Your task to perform on an android device: Empty the shopping cart on bestbuy. Add "razer naga" to the cart on bestbuy, then select checkout. Image 0: 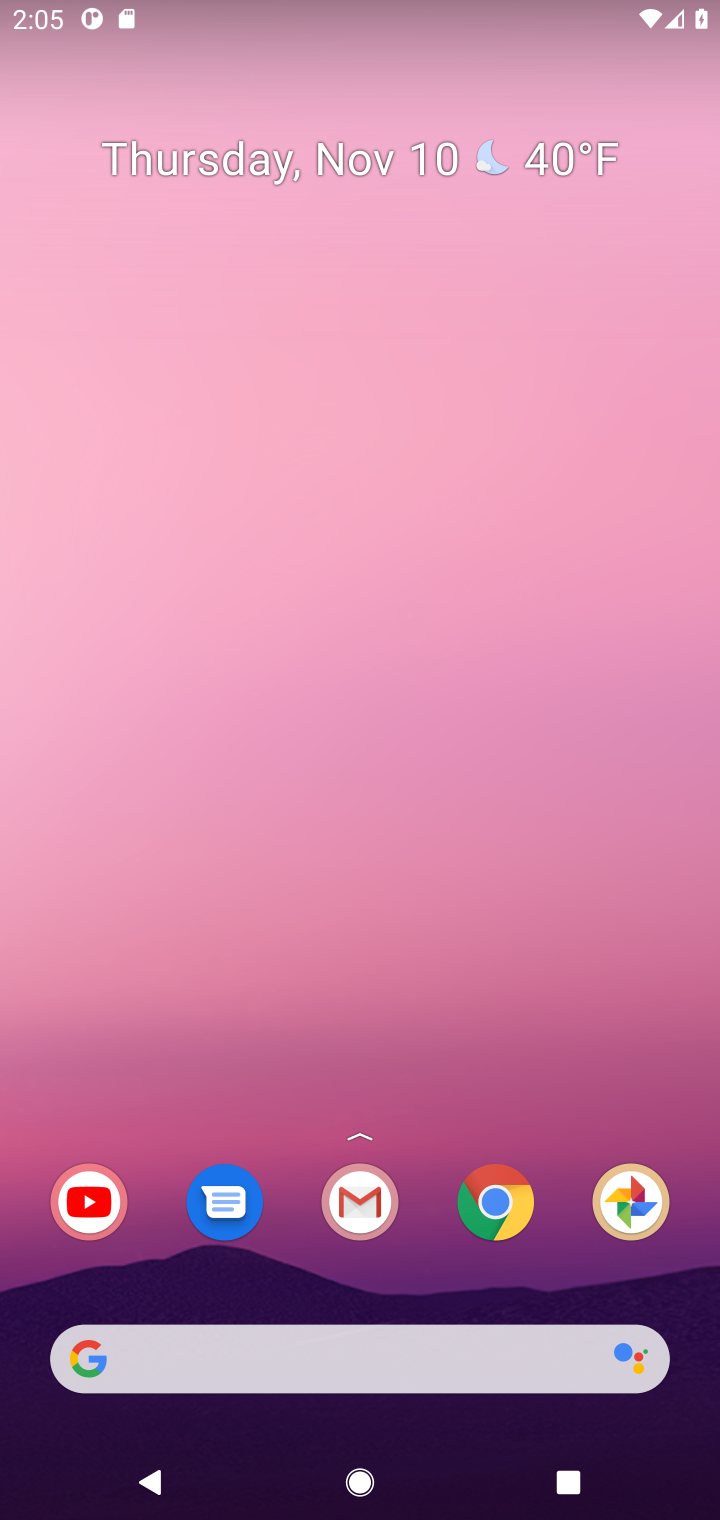
Step 0: press home button
Your task to perform on an android device: Empty the shopping cart on bestbuy. Add "razer naga" to the cart on bestbuy, then select checkout. Image 1: 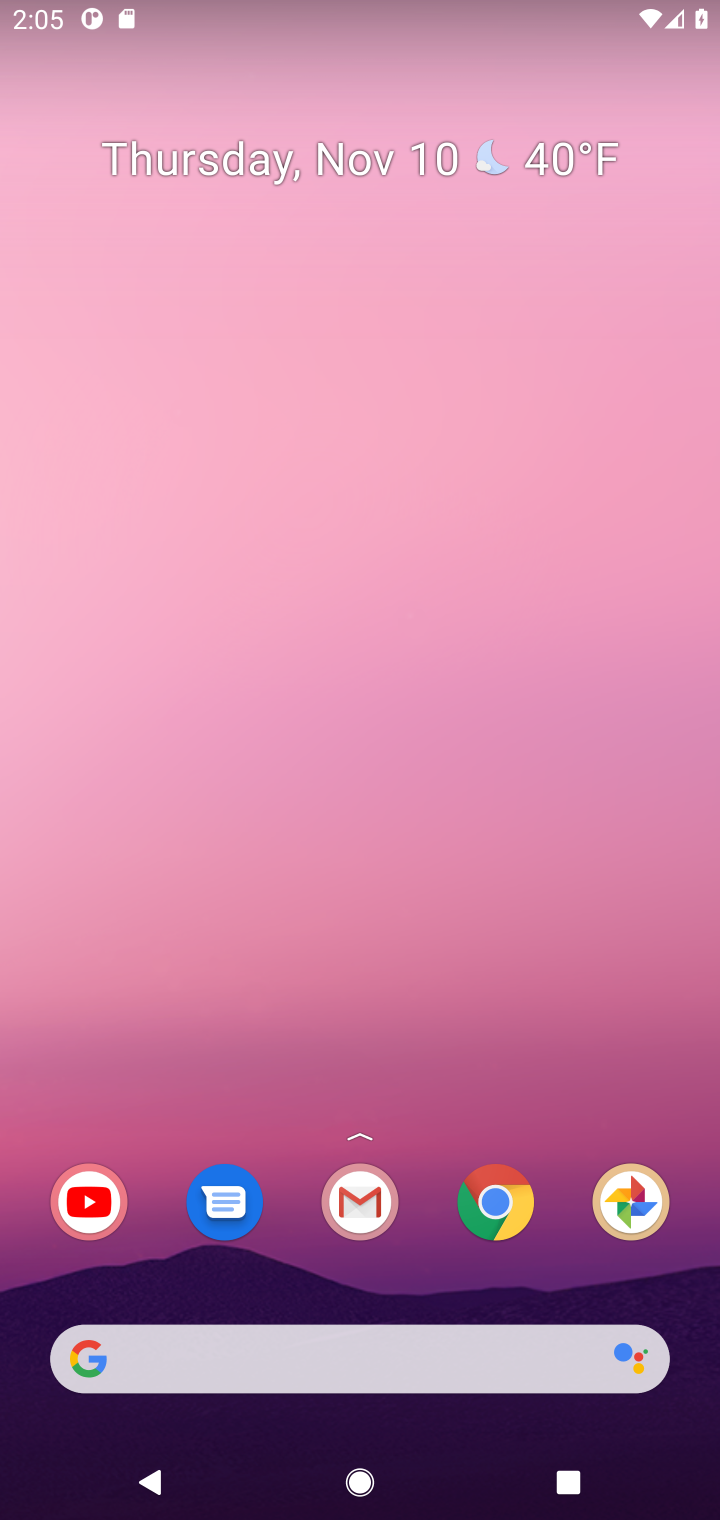
Step 1: click (499, 1196)
Your task to perform on an android device: Empty the shopping cart on bestbuy. Add "razer naga" to the cart on bestbuy, then select checkout. Image 2: 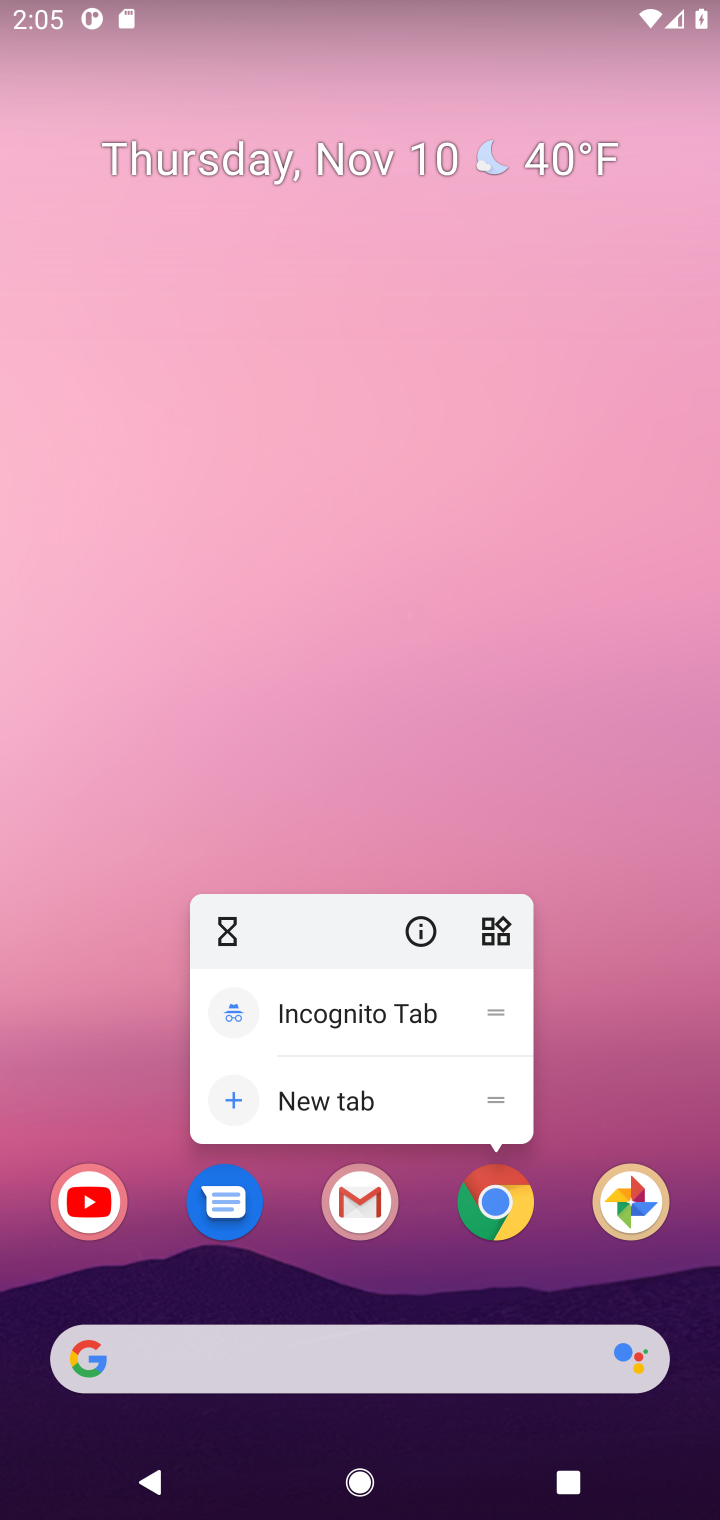
Step 2: click (499, 1196)
Your task to perform on an android device: Empty the shopping cart on bestbuy. Add "razer naga" to the cart on bestbuy, then select checkout. Image 3: 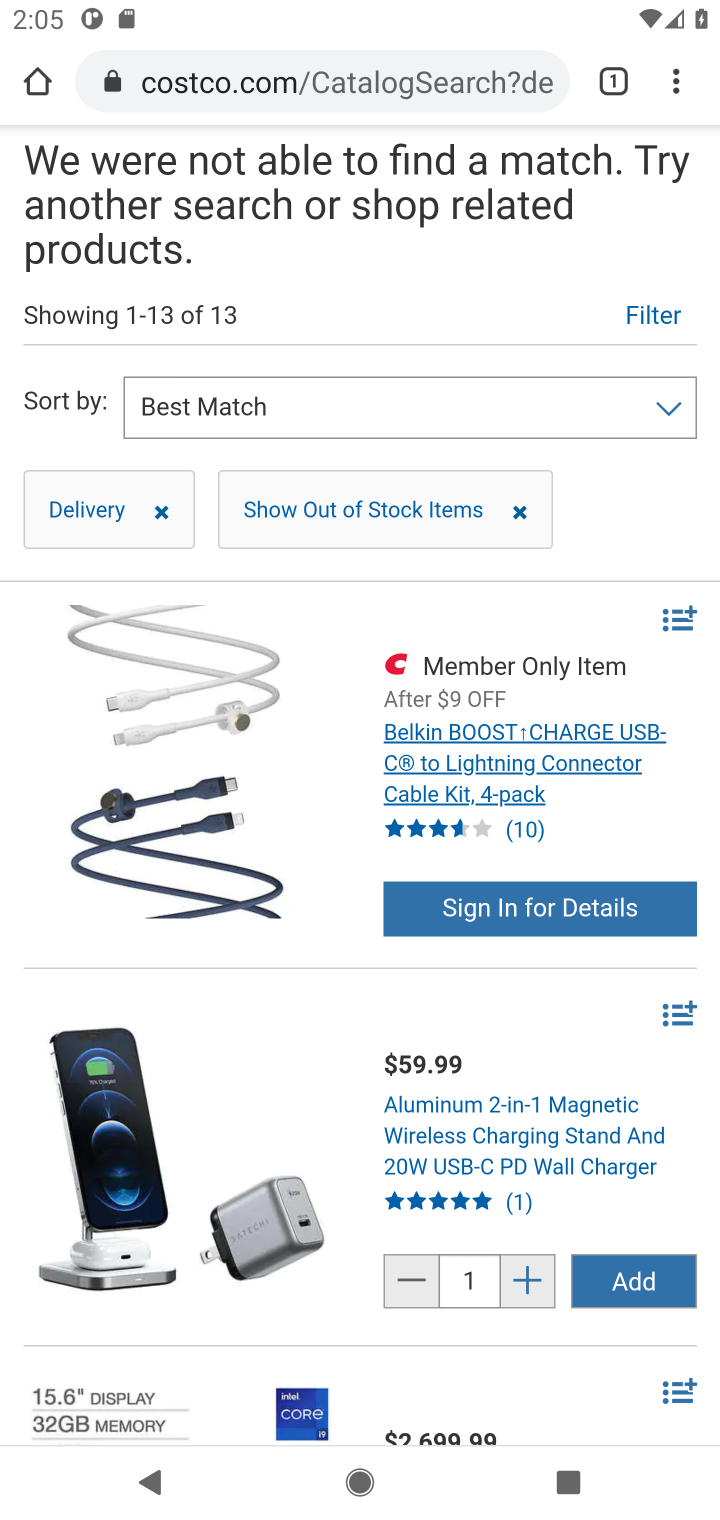
Step 3: click (351, 71)
Your task to perform on an android device: Empty the shopping cart on bestbuy. Add "razer naga" to the cart on bestbuy, then select checkout. Image 4: 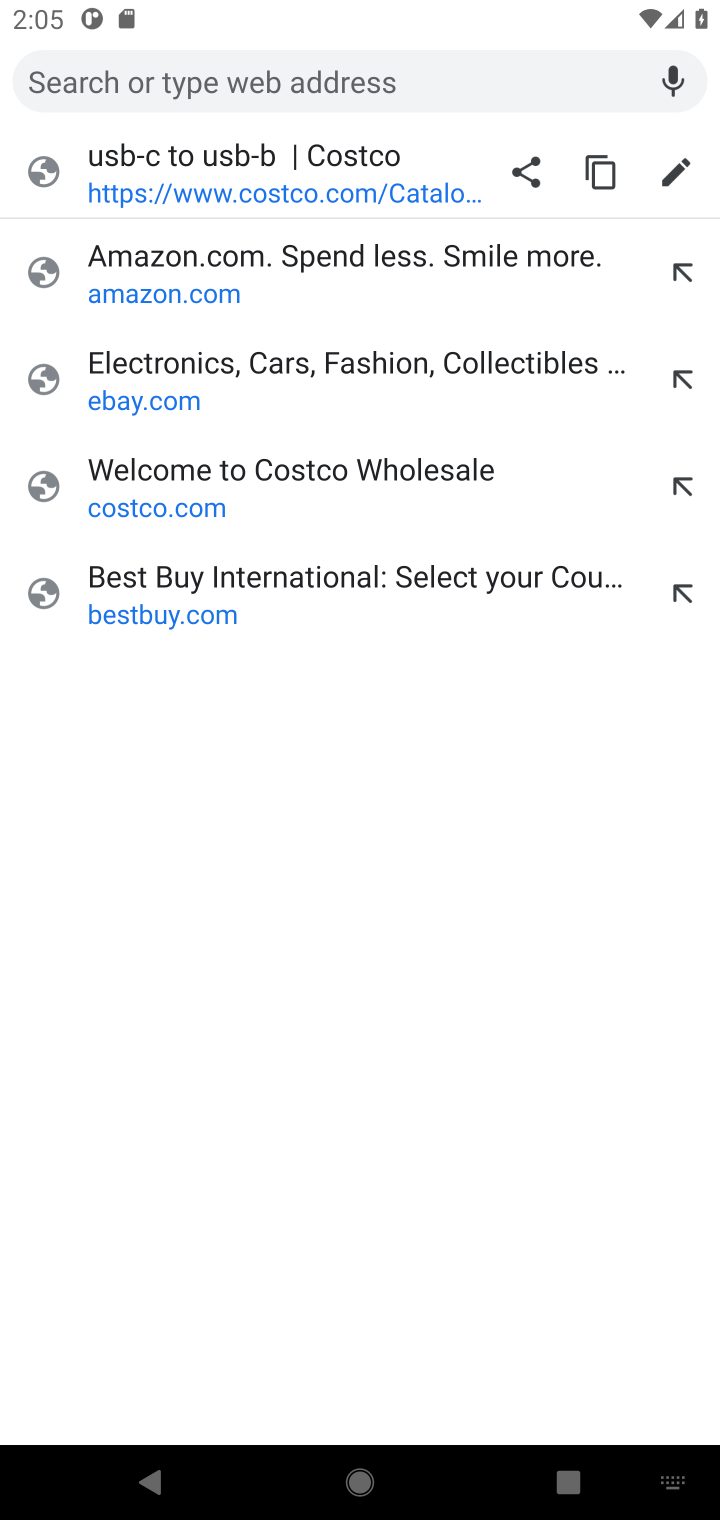
Step 4: click (166, 607)
Your task to perform on an android device: Empty the shopping cart on bestbuy. Add "razer naga" to the cart on bestbuy, then select checkout. Image 5: 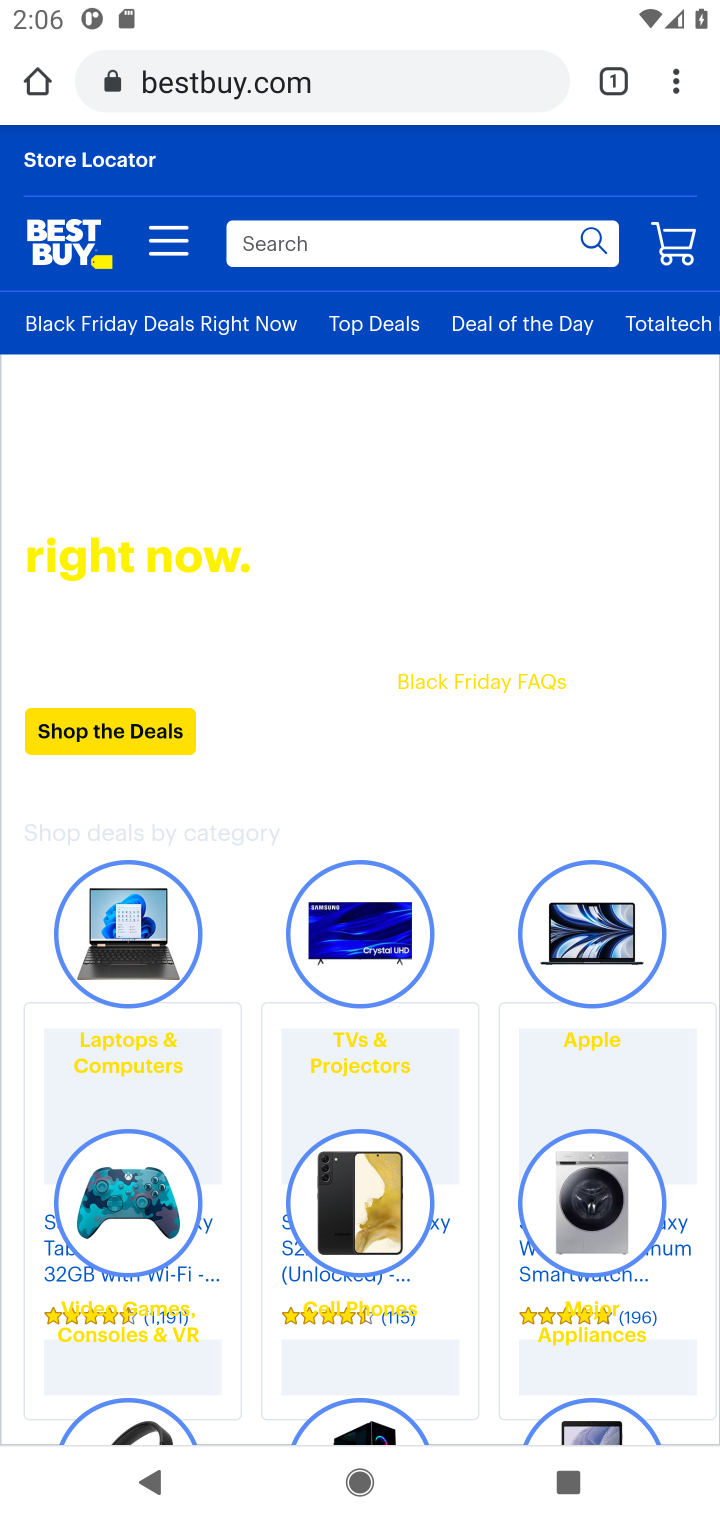
Step 5: click (362, 232)
Your task to perform on an android device: Empty the shopping cart on bestbuy. Add "razer naga" to the cart on bestbuy, then select checkout. Image 6: 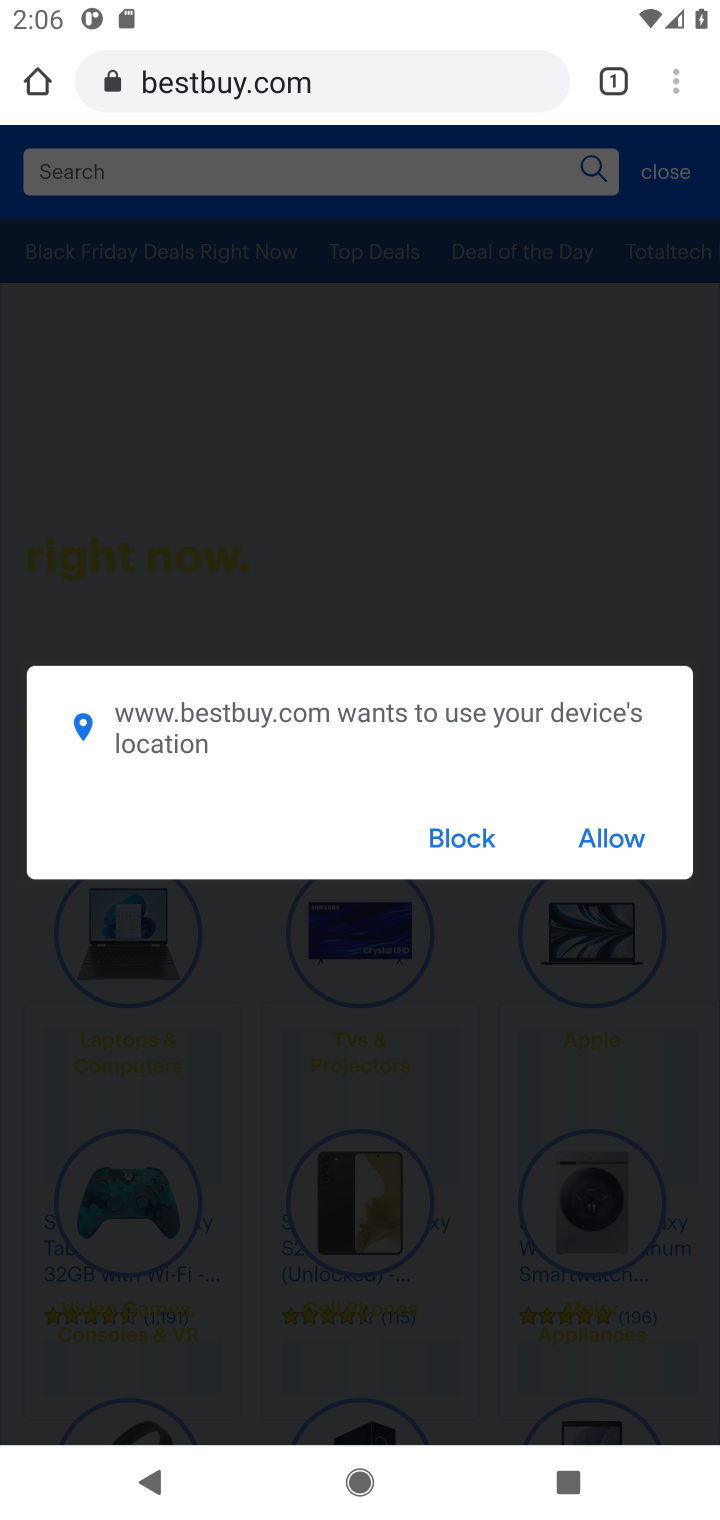
Step 6: click (595, 827)
Your task to perform on an android device: Empty the shopping cart on bestbuy. Add "razer naga" to the cart on bestbuy, then select checkout. Image 7: 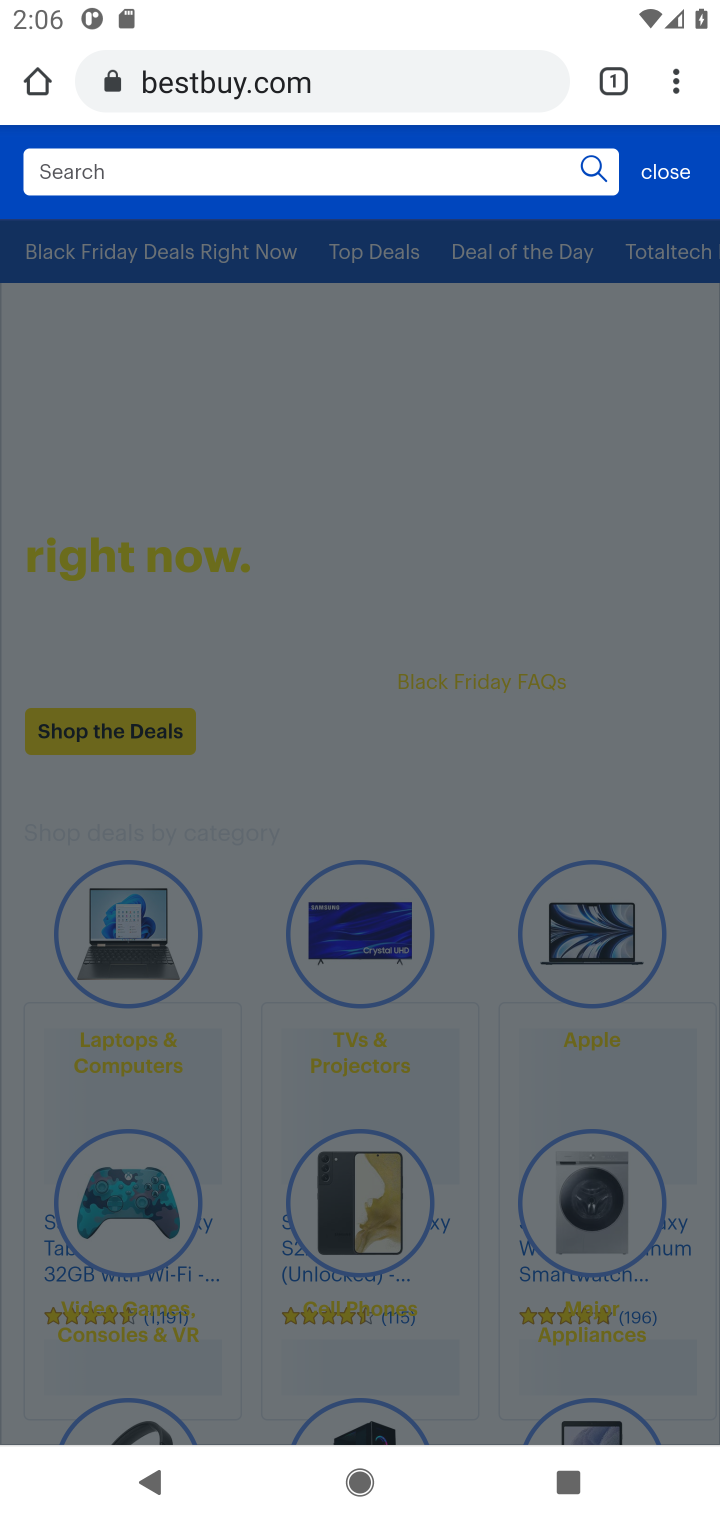
Step 7: click (78, 167)
Your task to perform on an android device: Empty the shopping cart on bestbuy. Add "razer naga" to the cart on bestbuy, then select checkout. Image 8: 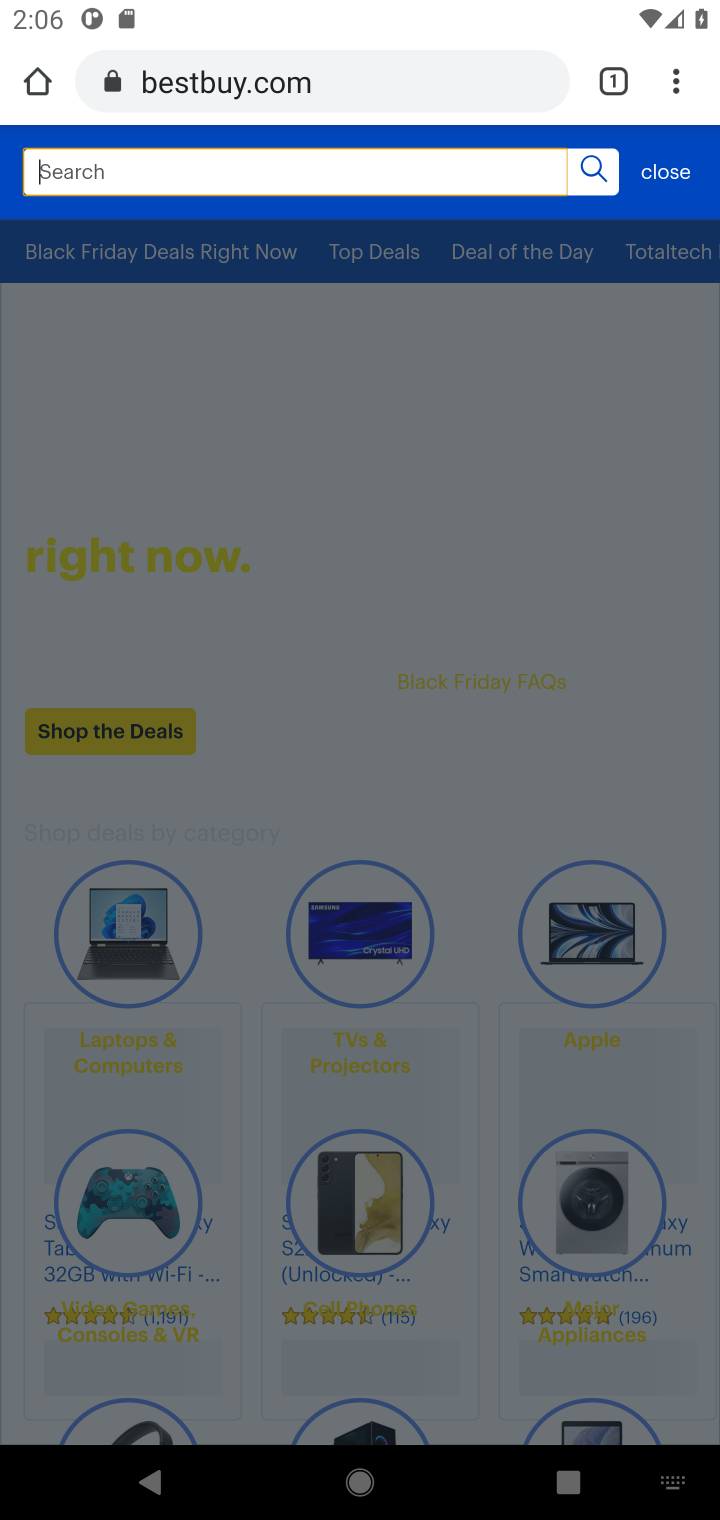
Step 8: press enter
Your task to perform on an android device: Empty the shopping cart on bestbuy. Add "razer naga" to the cart on bestbuy, then select checkout. Image 9: 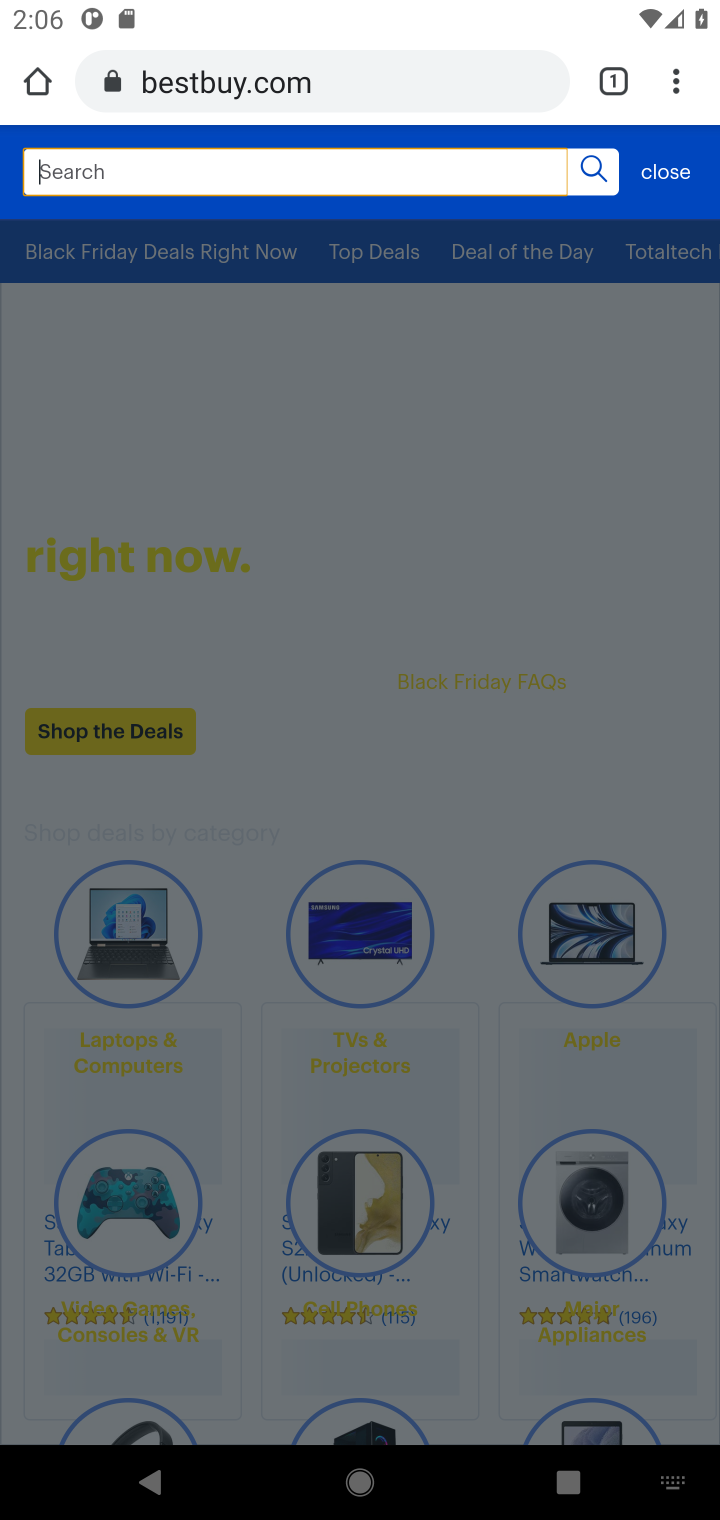
Step 9: type "razer naga"
Your task to perform on an android device: Empty the shopping cart on bestbuy. Add "razer naga" to the cart on bestbuy, then select checkout. Image 10: 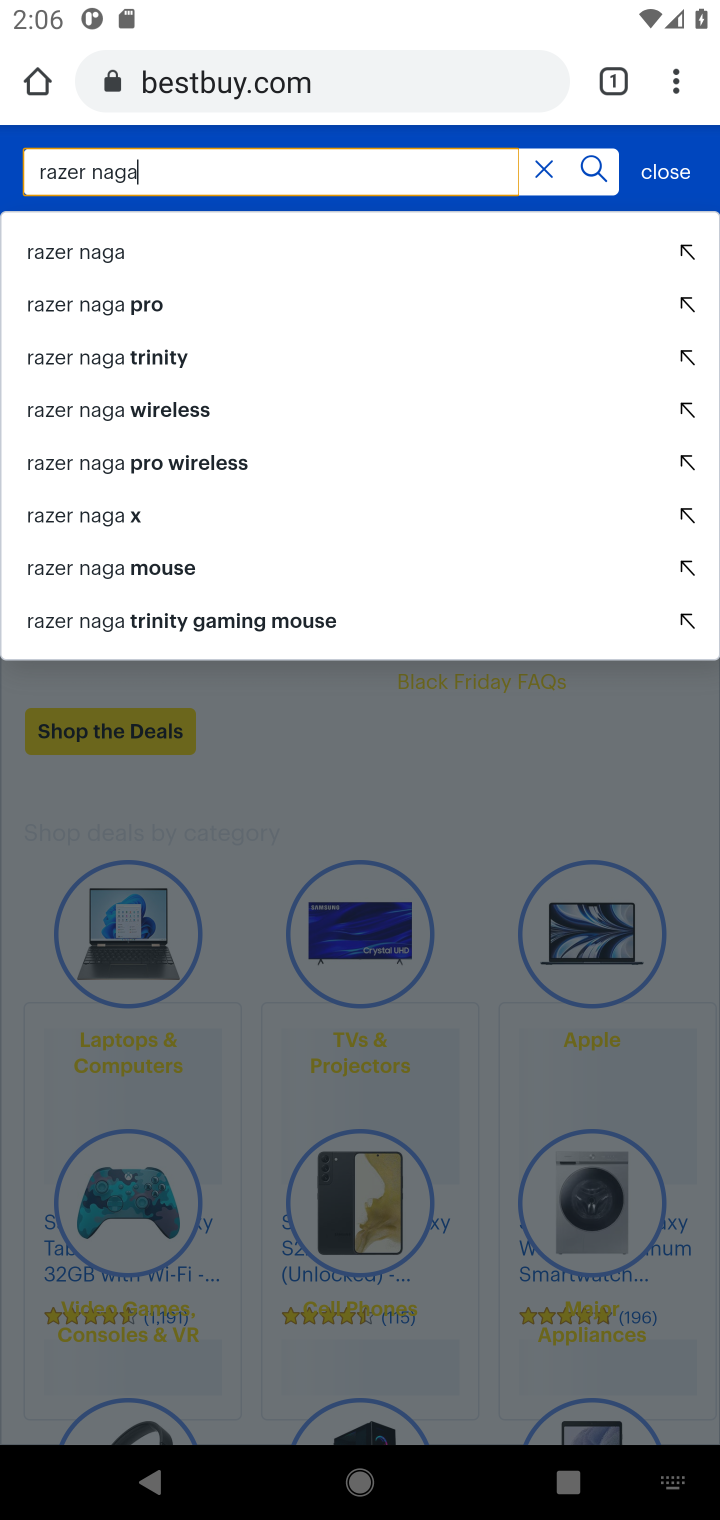
Step 10: press enter
Your task to perform on an android device: Empty the shopping cart on bestbuy. Add "razer naga" to the cart on bestbuy, then select checkout. Image 11: 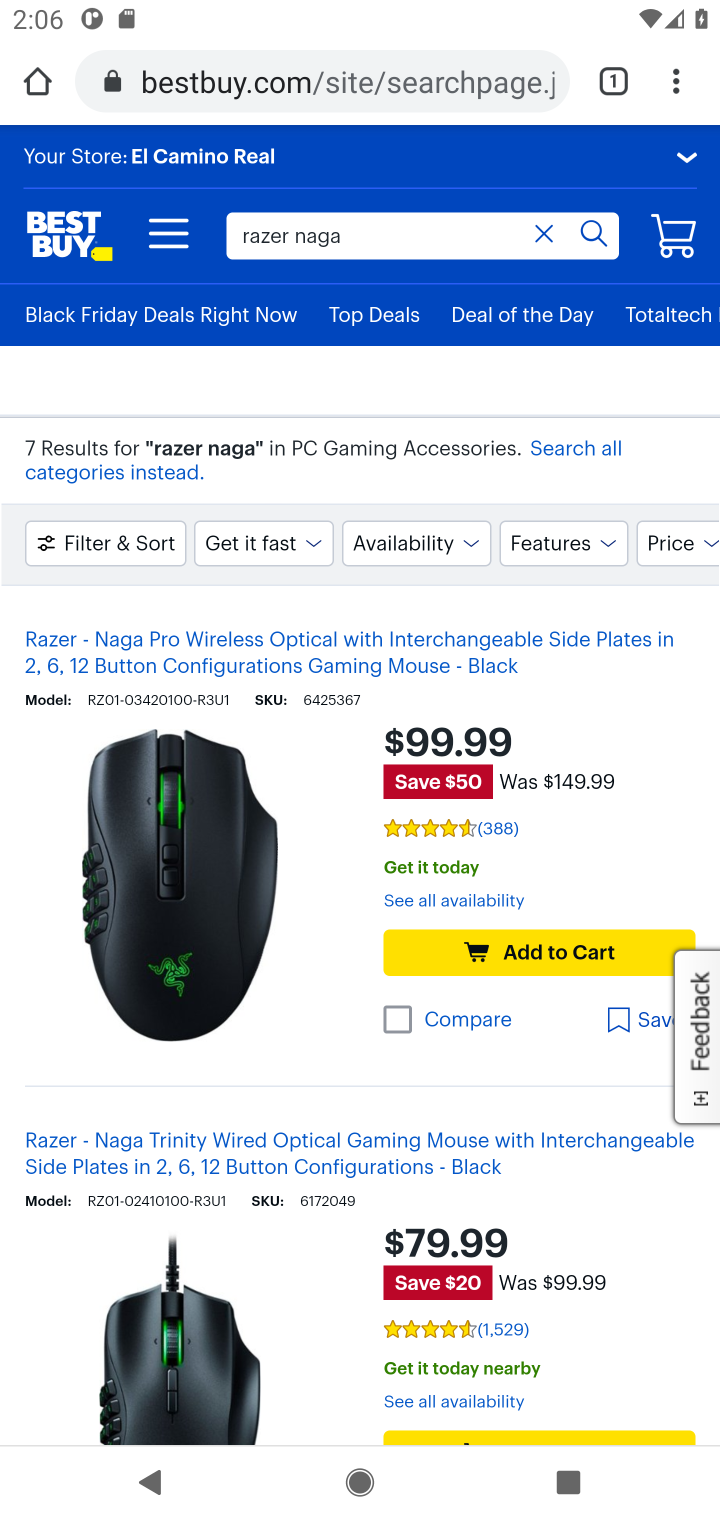
Step 11: click (558, 942)
Your task to perform on an android device: Empty the shopping cart on bestbuy. Add "razer naga" to the cart on bestbuy, then select checkout. Image 12: 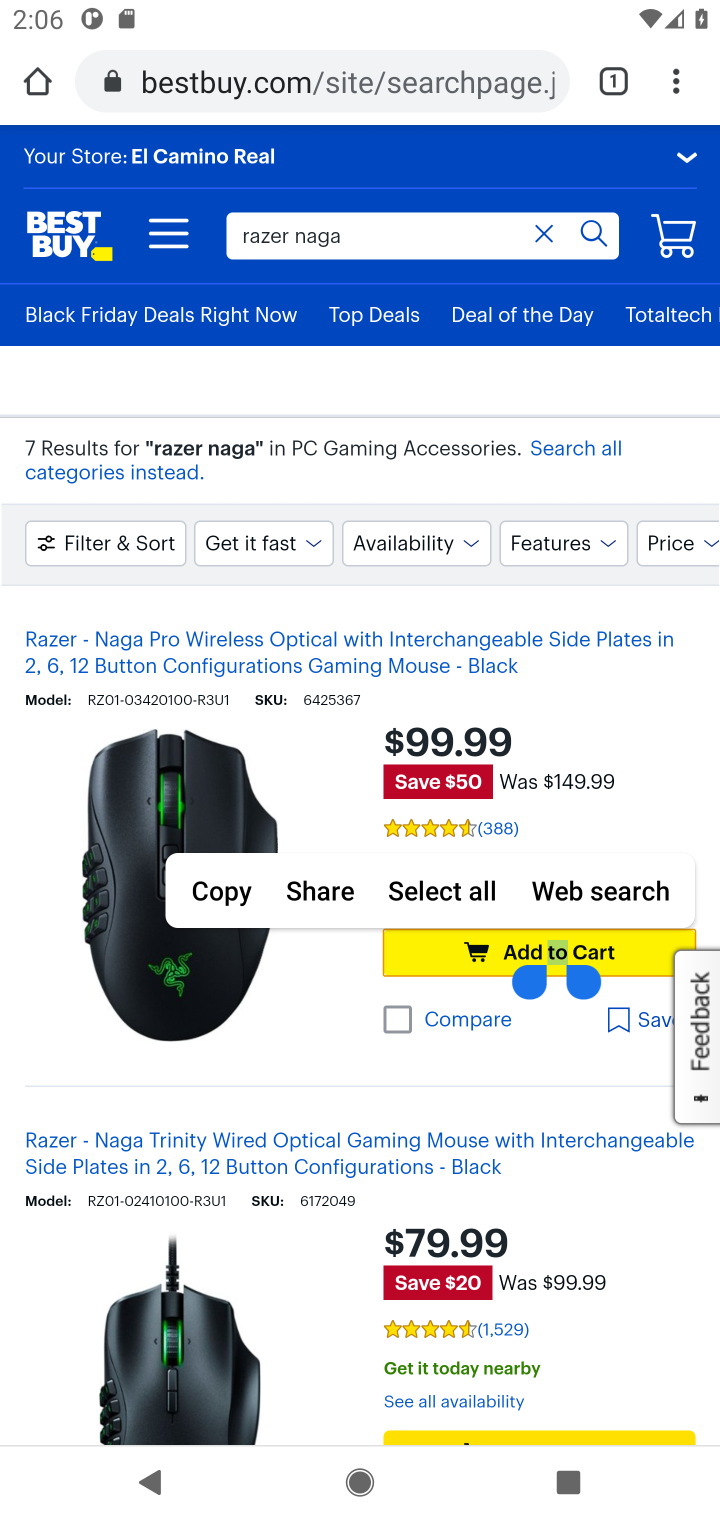
Step 12: click (574, 941)
Your task to perform on an android device: Empty the shopping cart on bestbuy. Add "razer naga" to the cart on bestbuy, then select checkout. Image 13: 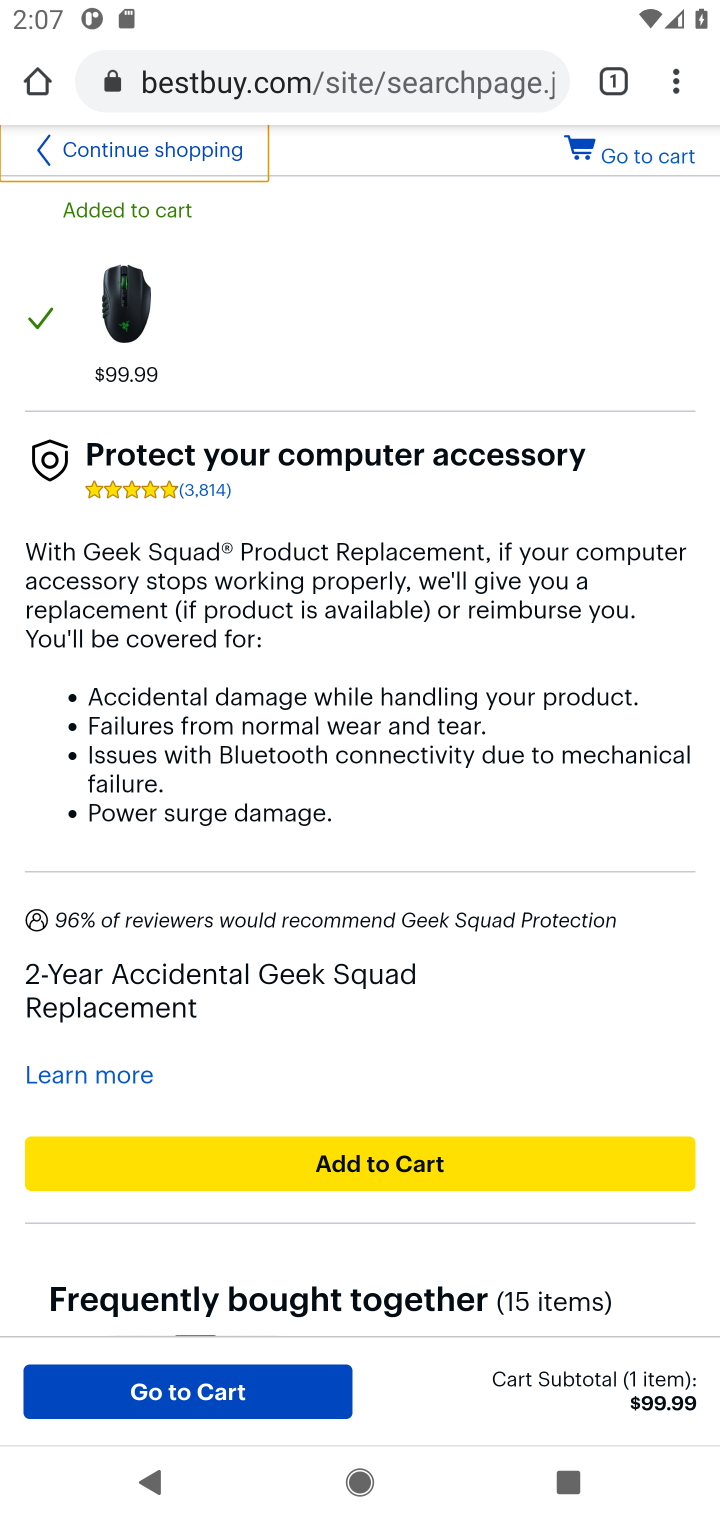
Step 13: click (651, 150)
Your task to perform on an android device: Empty the shopping cart on bestbuy. Add "razer naga" to the cart on bestbuy, then select checkout. Image 14: 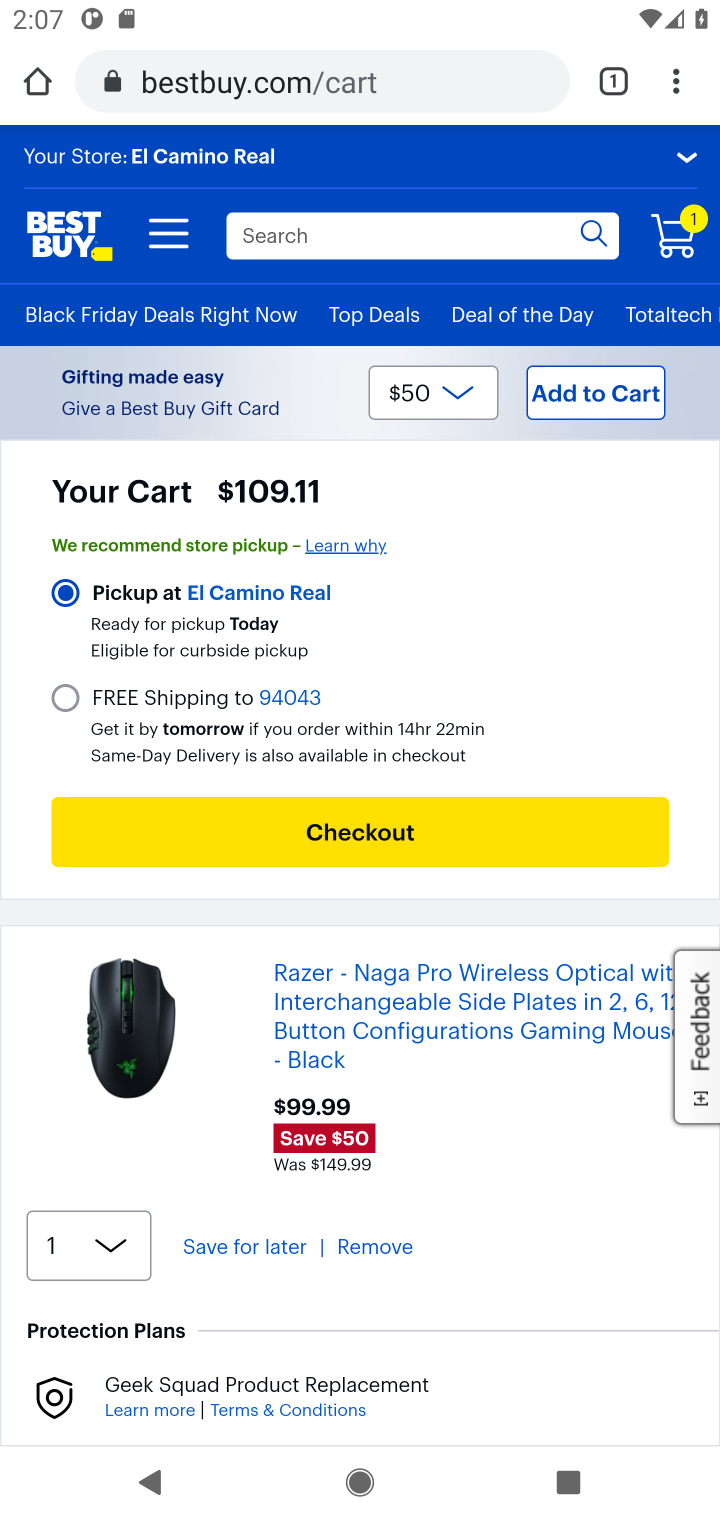
Step 14: click (379, 822)
Your task to perform on an android device: Empty the shopping cart on bestbuy. Add "razer naga" to the cart on bestbuy, then select checkout. Image 15: 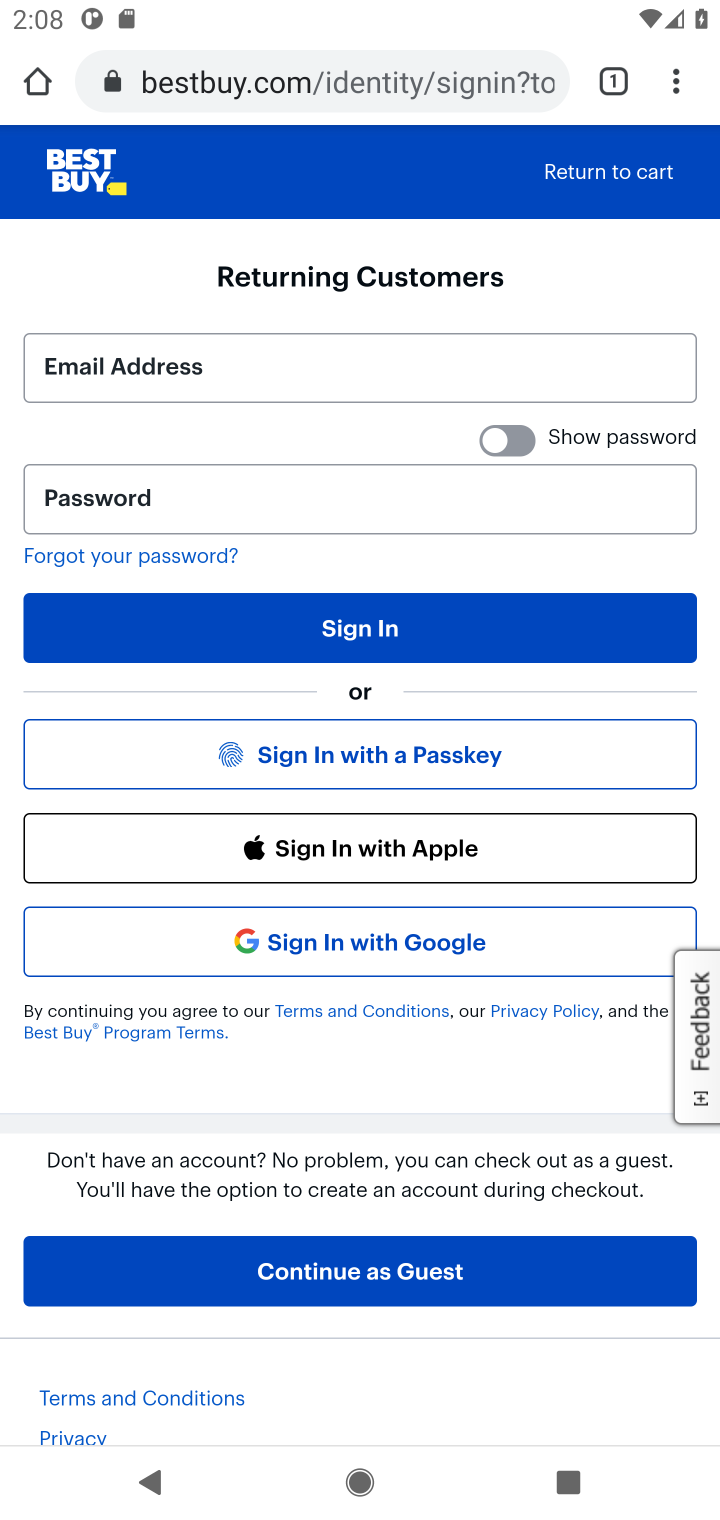
Step 15: task complete